Your task to perform on an android device: stop showing notifications on the lock screen Image 0: 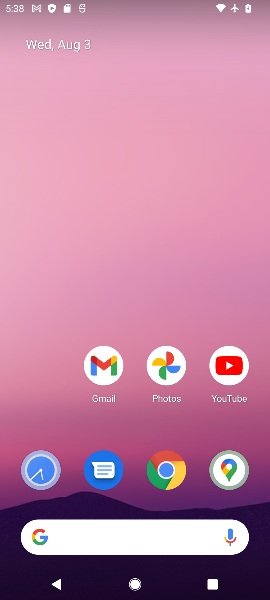
Step 0: drag from (75, 260) to (126, 45)
Your task to perform on an android device: stop showing notifications on the lock screen Image 1: 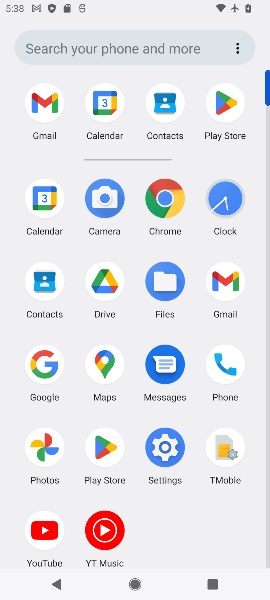
Step 1: click (170, 446)
Your task to perform on an android device: stop showing notifications on the lock screen Image 2: 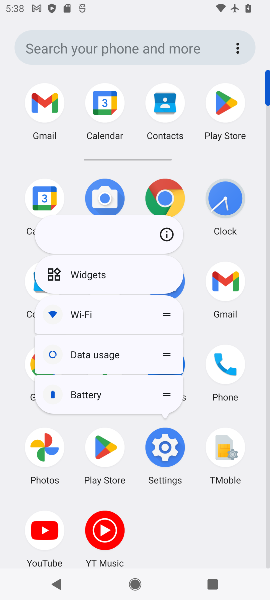
Step 2: click (170, 451)
Your task to perform on an android device: stop showing notifications on the lock screen Image 3: 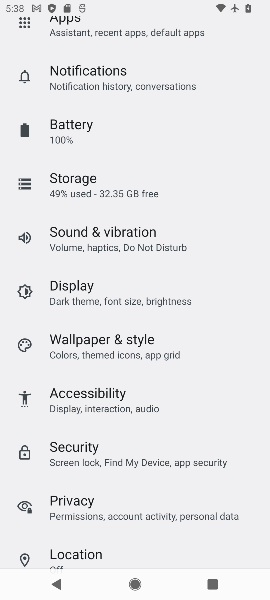
Step 3: click (129, 86)
Your task to perform on an android device: stop showing notifications on the lock screen Image 4: 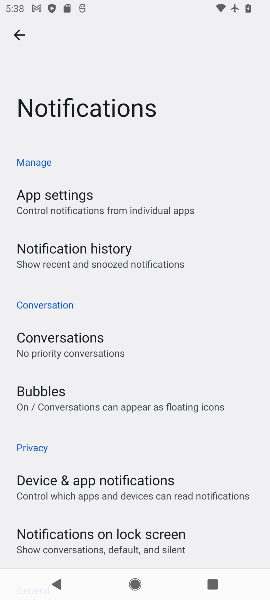
Step 4: drag from (173, 445) to (223, 123)
Your task to perform on an android device: stop showing notifications on the lock screen Image 5: 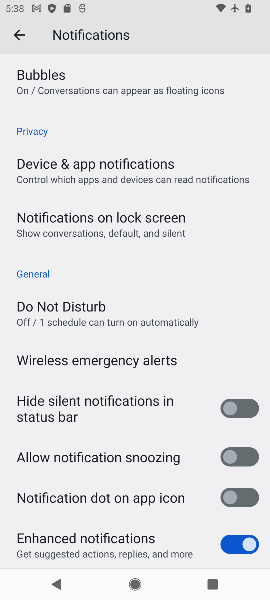
Step 5: click (165, 224)
Your task to perform on an android device: stop showing notifications on the lock screen Image 6: 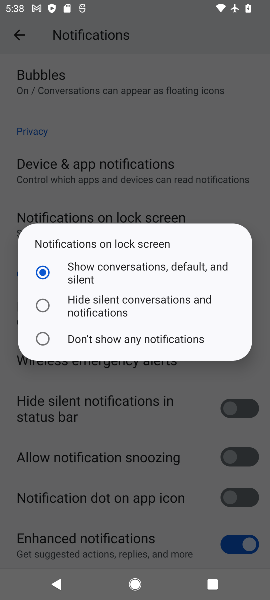
Step 6: click (156, 342)
Your task to perform on an android device: stop showing notifications on the lock screen Image 7: 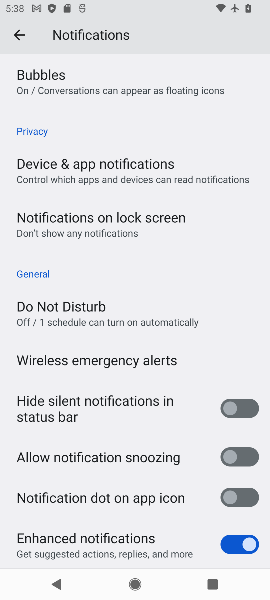
Step 7: task complete